Your task to perform on an android device: Go to Wikipedia Image 0: 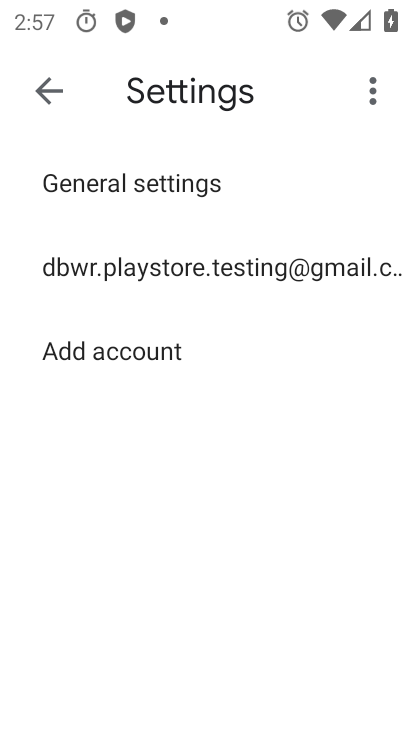
Step 0: press home button
Your task to perform on an android device: Go to Wikipedia Image 1: 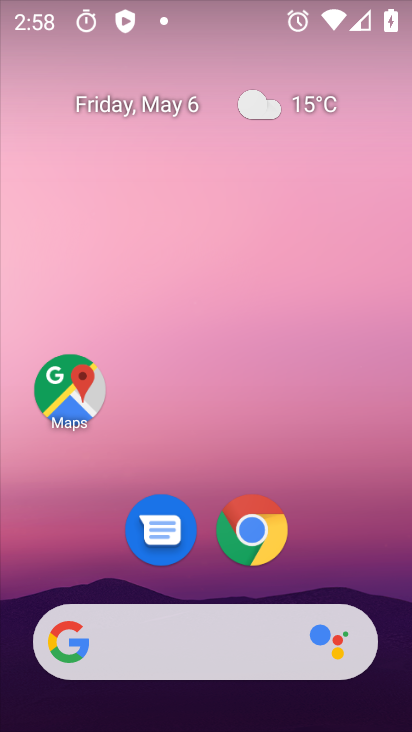
Step 1: click (269, 545)
Your task to perform on an android device: Go to Wikipedia Image 2: 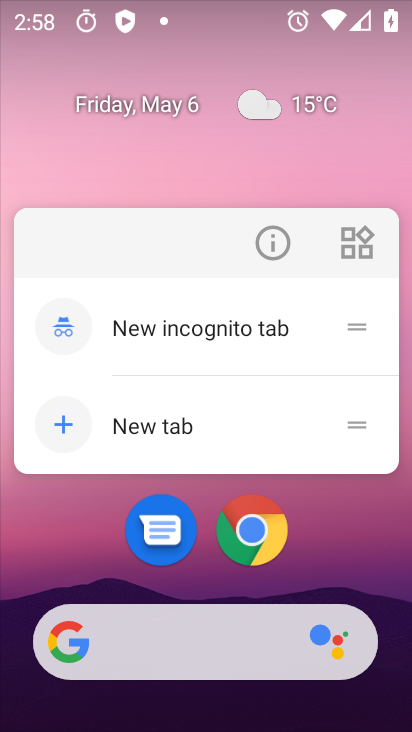
Step 2: click (251, 524)
Your task to perform on an android device: Go to Wikipedia Image 3: 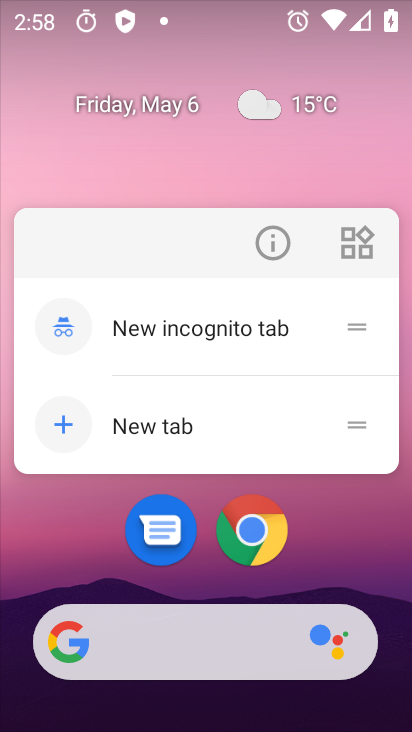
Step 3: click (247, 523)
Your task to perform on an android device: Go to Wikipedia Image 4: 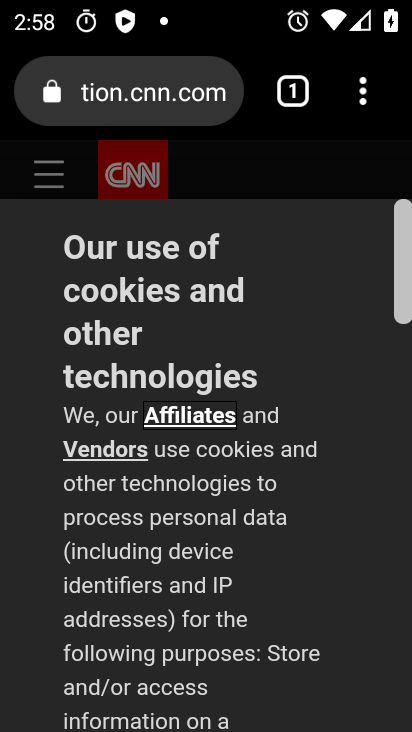
Step 4: click (167, 99)
Your task to perform on an android device: Go to Wikipedia Image 5: 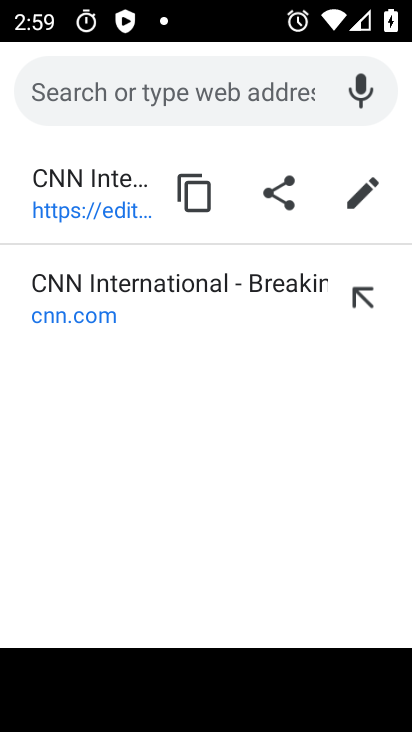
Step 5: type "wikipedia"
Your task to perform on an android device: Go to Wikipedia Image 6: 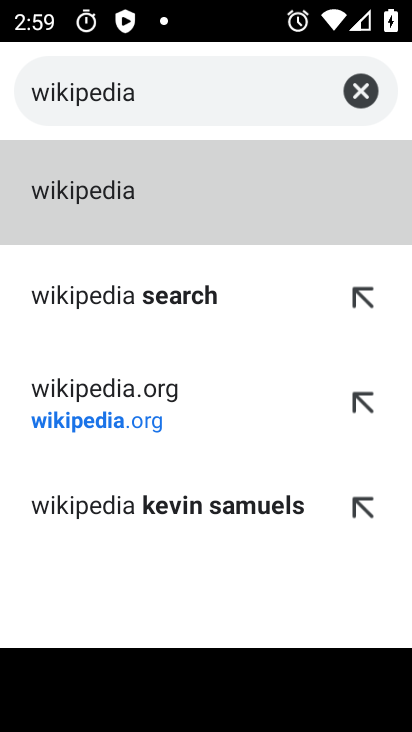
Step 6: click (130, 206)
Your task to perform on an android device: Go to Wikipedia Image 7: 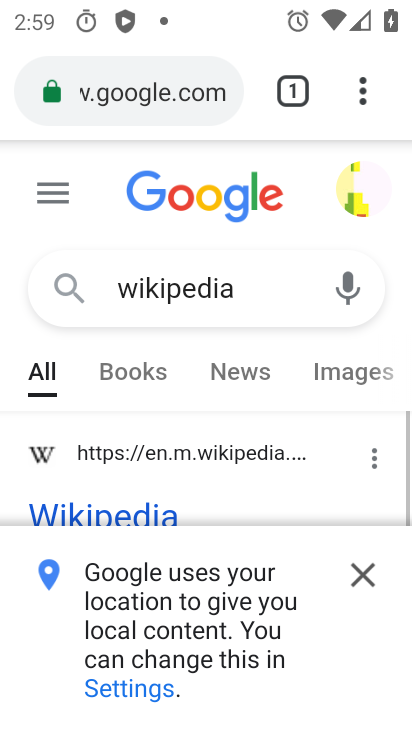
Step 7: drag from (273, 470) to (298, 222)
Your task to perform on an android device: Go to Wikipedia Image 8: 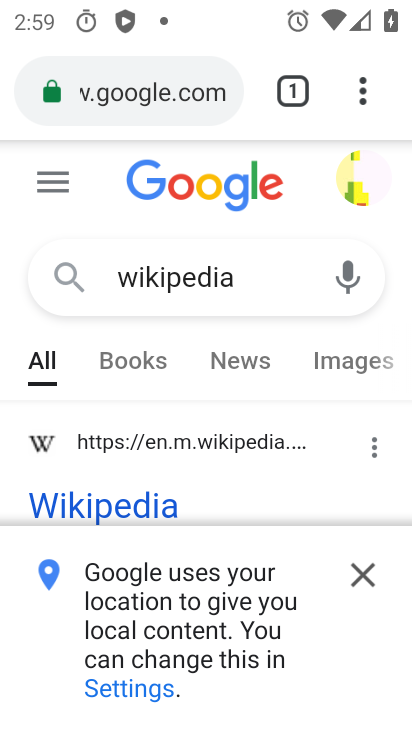
Step 8: click (355, 577)
Your task to perform on an android device: Go to Wikipedia Image 9: 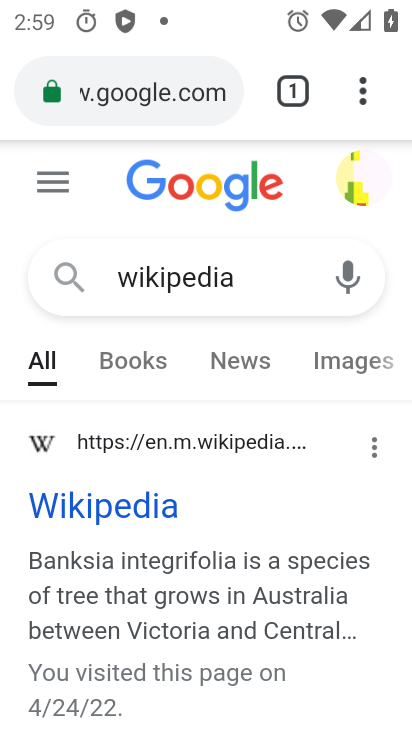
Step 9: click (79, 502)
Your task to perform on an android device: Go to Wikipedia Image 10: 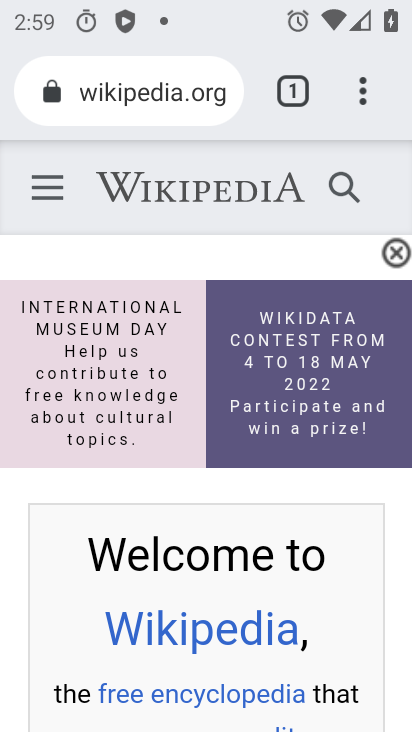
Step 10: task complete